Your task to perform on an android device: turn on javascript in the chrome app Image 0: 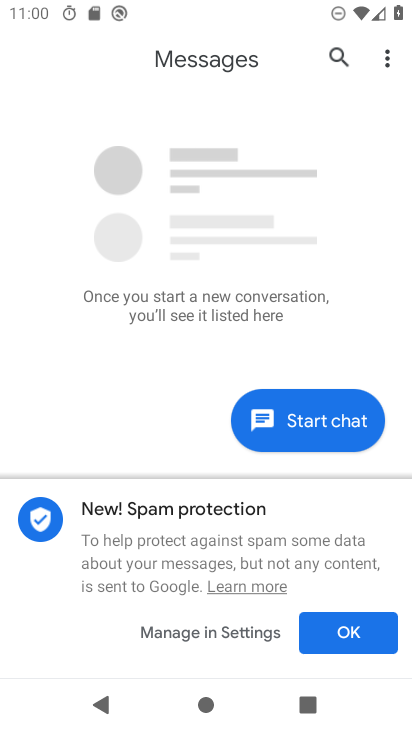
Step 0: press home button
Your task to perform on an android device: turn on javascript in the chrome app Image 1: 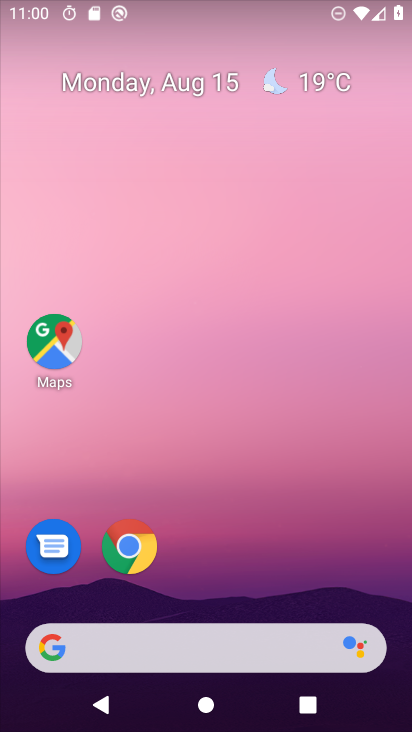
Step 1: click (126, 549)
Your task to perform on an android device: turn on javascript in the chrome app Image 2: 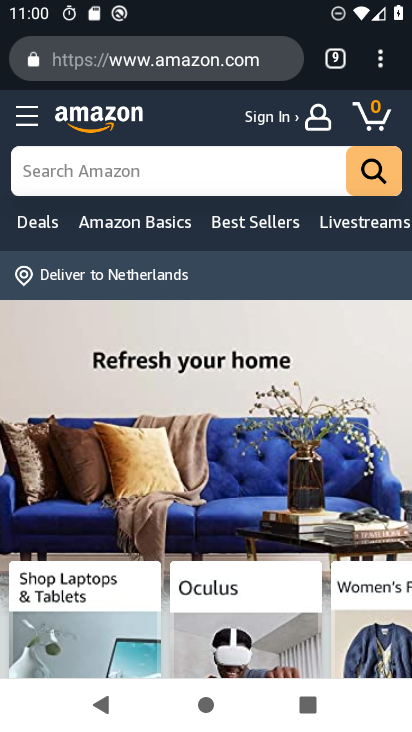
Step 2: click (383, 68)
Your task to perform on an android device: turn on javascript in the chrome app Image 3: 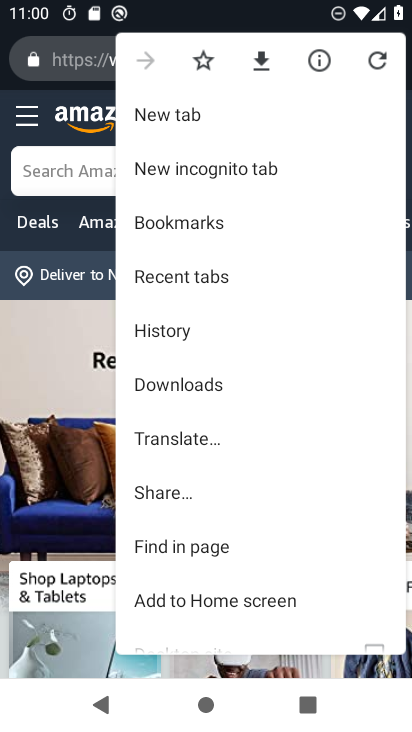
Step 3: drag from (217, 584) to (239, 272)
Your task to perform on an android device: turn on javascript in the chrome app Image 4: 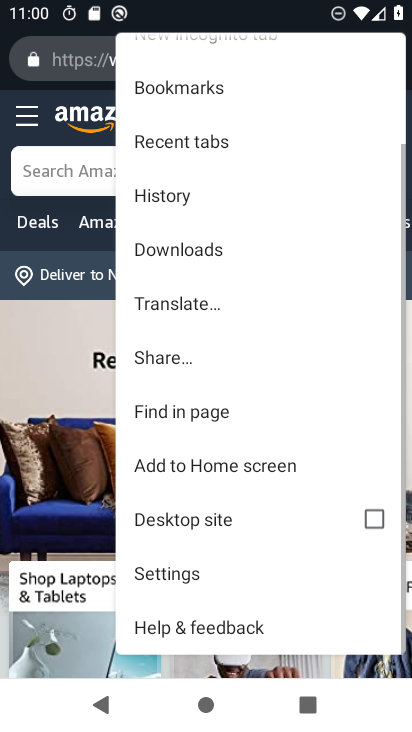
Step 4: click (179, 577)
Your task to perform on an android device: turn on javascript in the chrome app Image 5: 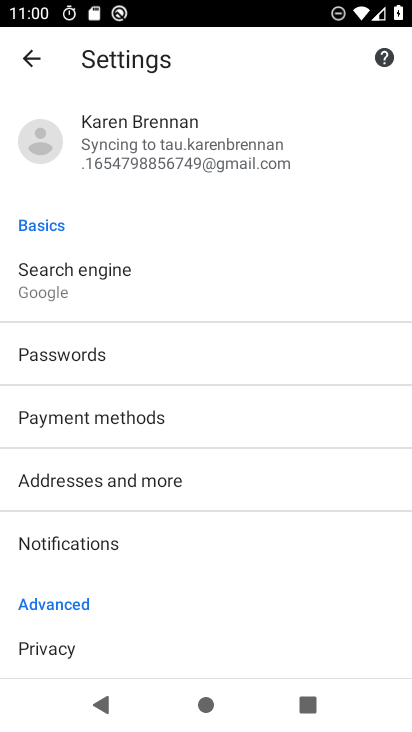
Step 5: drag from (125, 628) to (142, 370)
Your task to perform on an android device: turn on javascript in the chrome app Image 6: 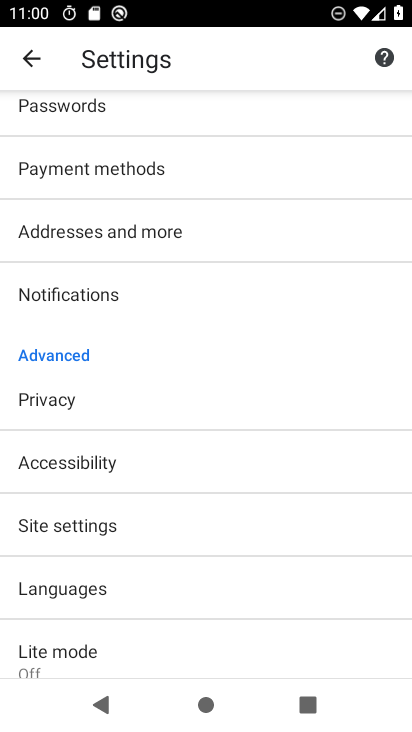
Step 6: click (94, 523)
Your task to perform on an android device: turn on javascript in the chrome app Image 7: 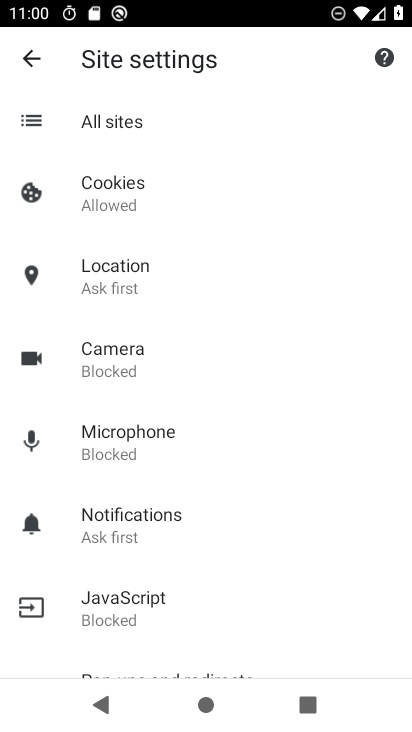
Step 7: click (116, 610)
Your task to perform on an android device: turn on javascript in the chrome app Image 8: 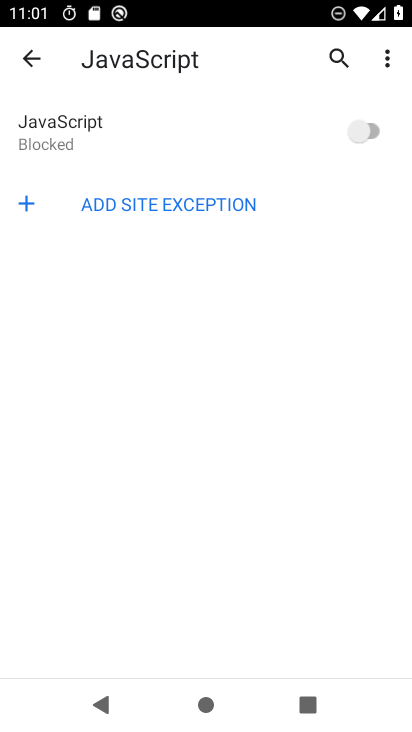
Step 8: click (376, 130)
Your task to perform on an android device: turn on javascript in the chrome app Image 9: 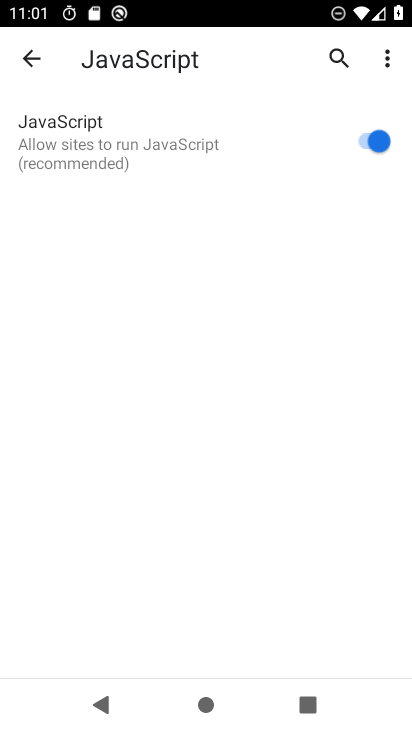
Step 9: task complete